Your task to perform on an android device: Open calendar and show me the first week of next month Image 0: 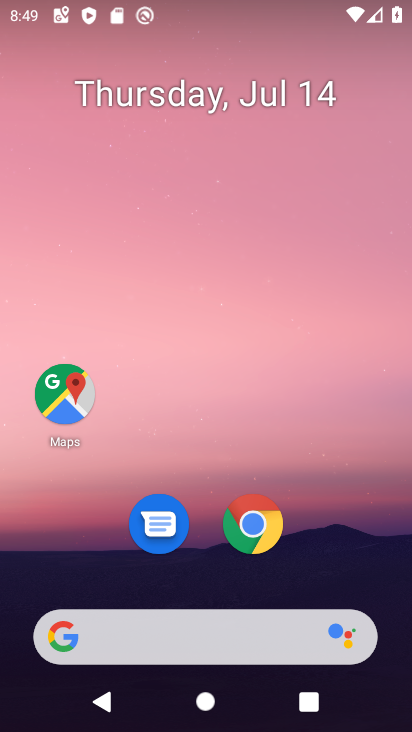
Step 0: drag from (324, 547) to (301, 1)
Your task to perform on an android device: Open calendar and show me the first week of next month Image 1: 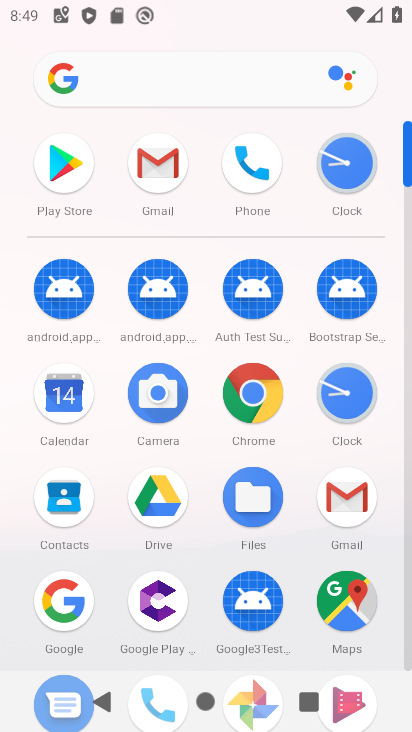
Step 1: click (72, 395)
Your task to perform on an android device: Open calendar and show me the first week of next month Image 2: 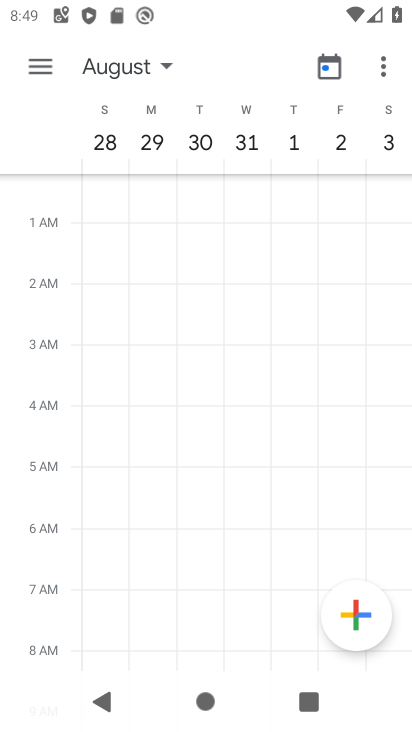
Step 2: task complete